Your task to perform on an android device: Search for logitech g pro on target.com, select the first entry, add it to the cart, then select checkout. Image 0: 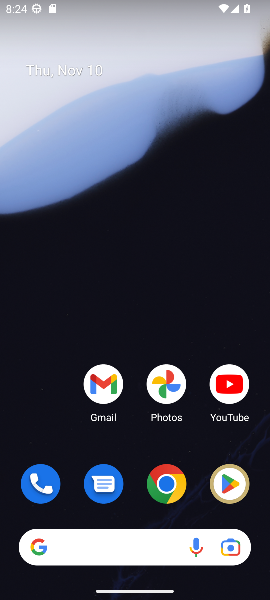
Step 0: click (170, 484)
Your task to perform on an android device: Search for logitech g pro on target.com, select the first entry, add it to the cart, then select checkout. Image 1: 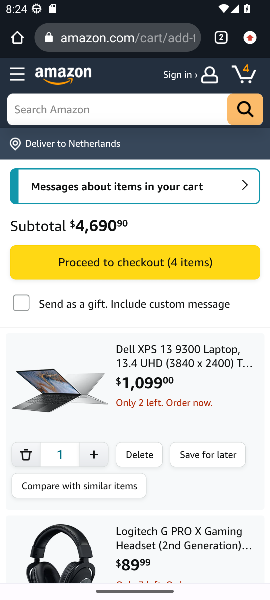
Step 1: click (127, 43)
Your task to perform on an android device: Search for logitech g pro on target.com, select the first entry, add it to the cart, then select checkout. Image 2: 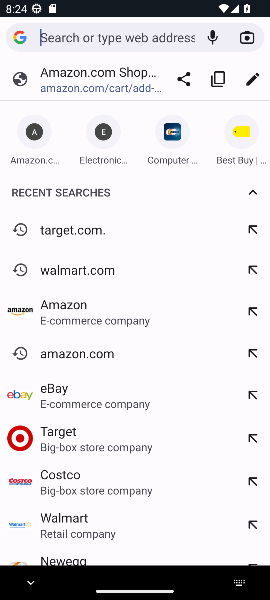
Step 2: click (70, 231)
Your task to perform on an android device: Search for logitech g pro on target.com, select the first entry, add it to the cart, then select checkout. Image 3: 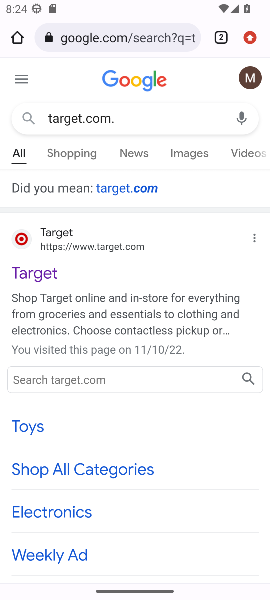
Step 3: click (48, 261)
Your task to perform on an android device: Search for logitech g pro on target.com, select the first entry, add it to the cart, then select checkout. Image 4: 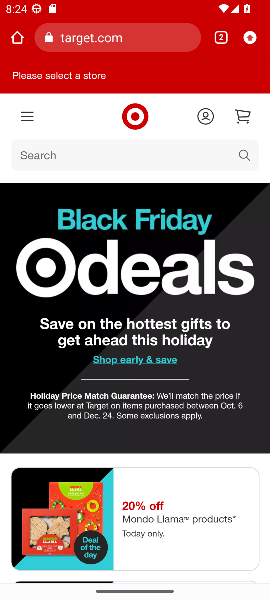
Step 4: click (242, 156)
Your task to perform on an android device: Search for logitech g pro on target.com, select the first entry, add it to the cart, then select checkout. Image 5: 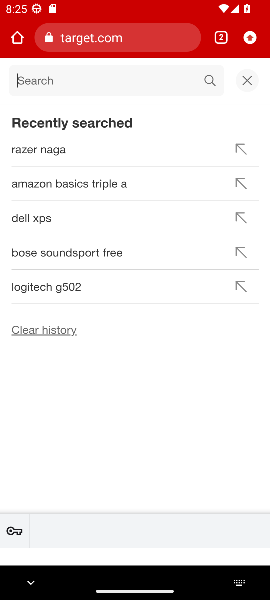
Step 5: type "logitech g pro"
Your task to perform on an android device: Search for logitech g pro on target.com, select the first entry, add it to the cart, then select checkout. Image 6: 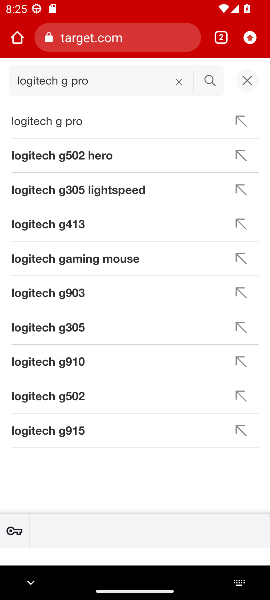
Step 6: click (72, 121)
Your task to perform on an android device: Search for logitech g pro on target.com, select the first entry, add it to the cart, then select checkout. Image 7: 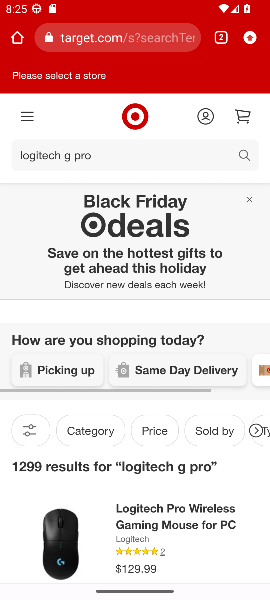
Step 7: task complete